Your task to perform on an android device: Open calendar and show me the fourth week of next month Image 0: 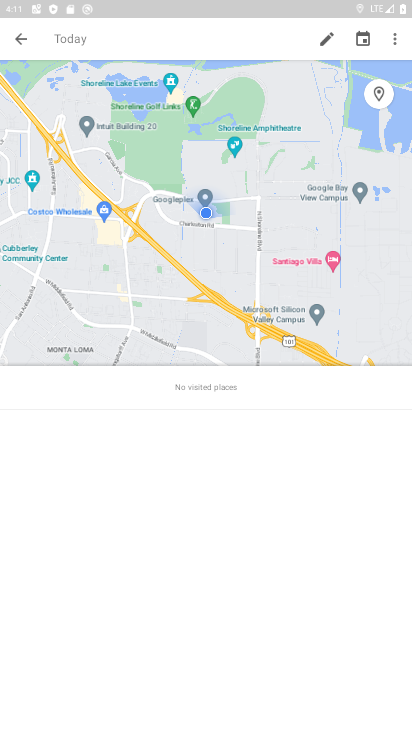
Step 0: press home button
Your task to perform on an android device: Open calendar and show me the fourth week of next month Image 1: 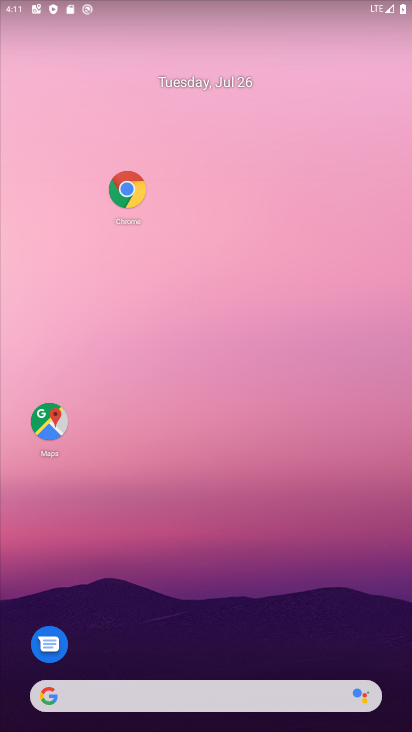
Step 1: drag from (263, 664) to (316, 197)
Your task to perform on an android device: Open calendar and show me the fourth week of next month Image 2: 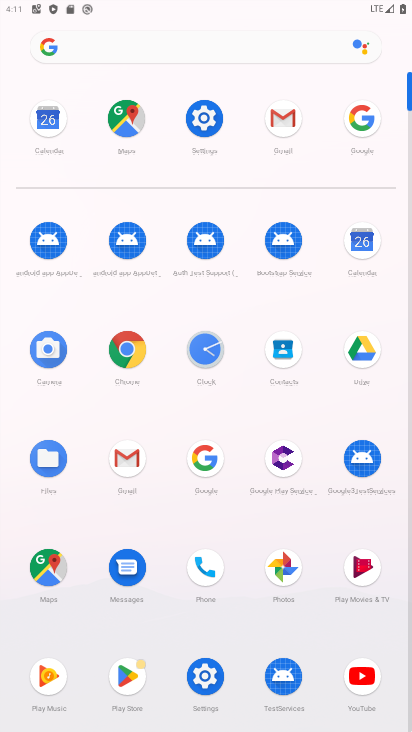
Step 2: click (360, 236)
Your task to perform on an android device: Open calendar and show me the fourth week of next month Image 3: 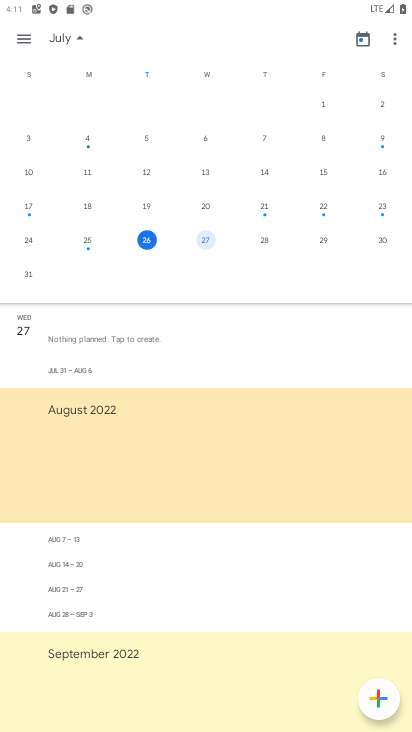
Step 3: drag from (403, 191) to (16, 209)
Your task to perform on an android device: Open calendar and show me the fourth week of next month Image 4: 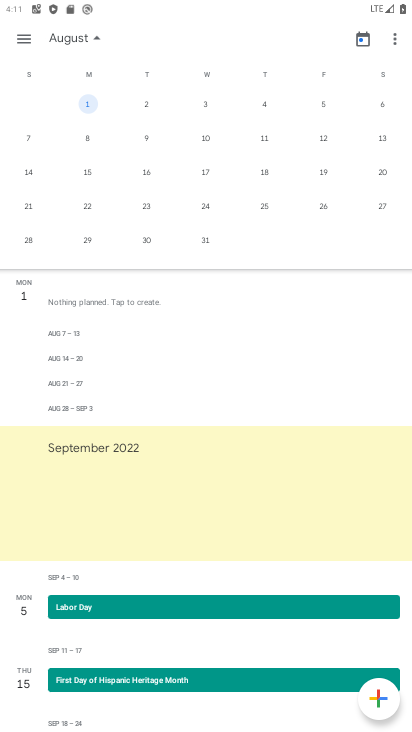
Step 4: click (31, 213)
Your task to perform on an android device: Open calendar and show me the fourth week of next month Image 5: 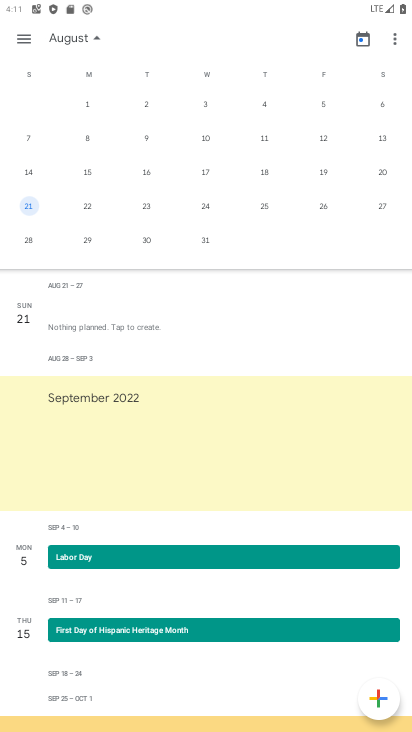
Step 5: task complete